Your task to perform on an android device: Open Google Chrome and open the bookmarks view Image 0: 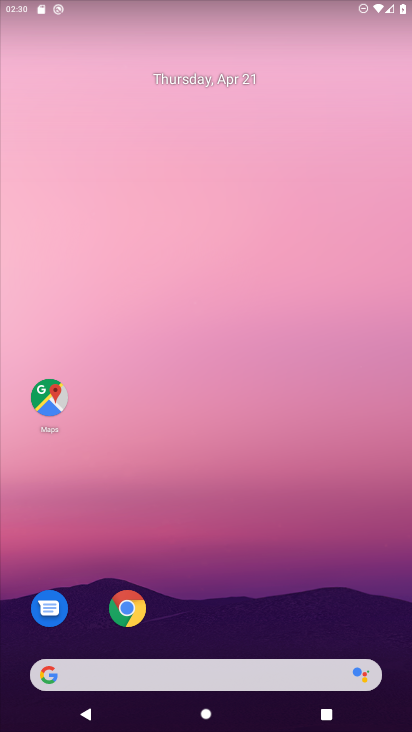
Step 0: drag from (200, 483) to (210, 234)
Your task to perform on an android device: Open Google Chrome and open the bookmarks view Image 1: 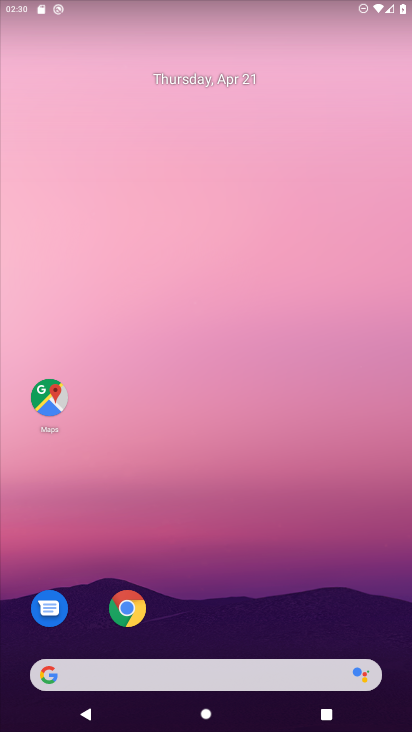
Step 1: drag from (260, 656) to (279, 207)
Your task to perform on an android device: Open Google Chrome and open the bookmarks view Image 2: 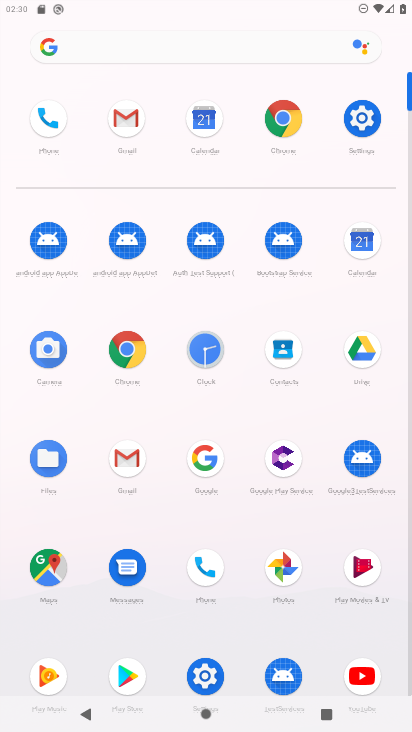
Step 2: click (277, 118)
Your task to perform on an android device: Open Google Chrome and open the bookmarks view Image 3: 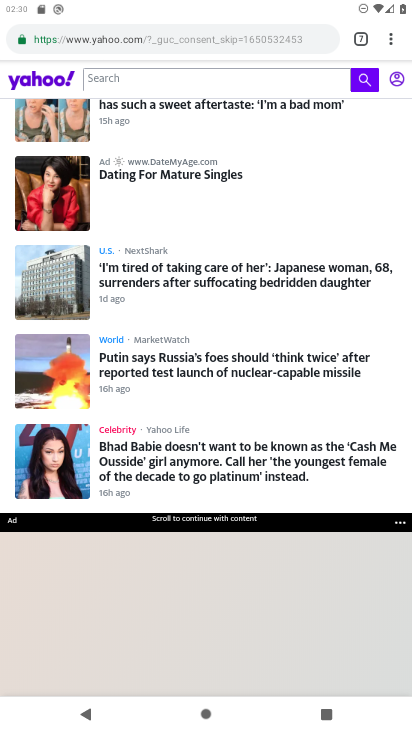
Step 3: click (386, 34)
Your task to perform on an android device: Open Google Chrome and open the bookmarks view Image 4: 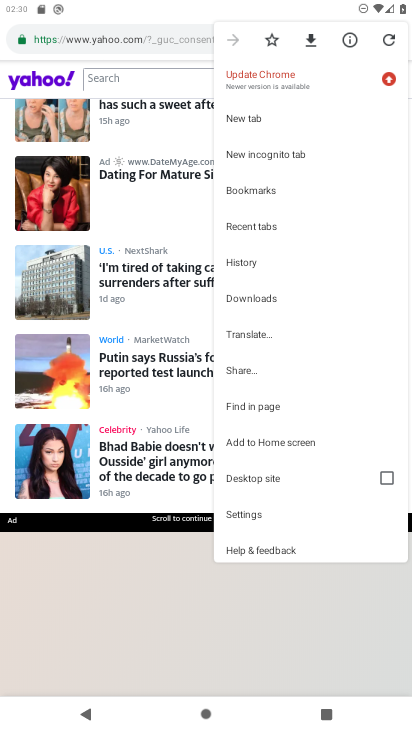
Step 4: click (277, 185)
Your task to perform on an android device: Open Google Chrome and open the bookmarks view Image 5: 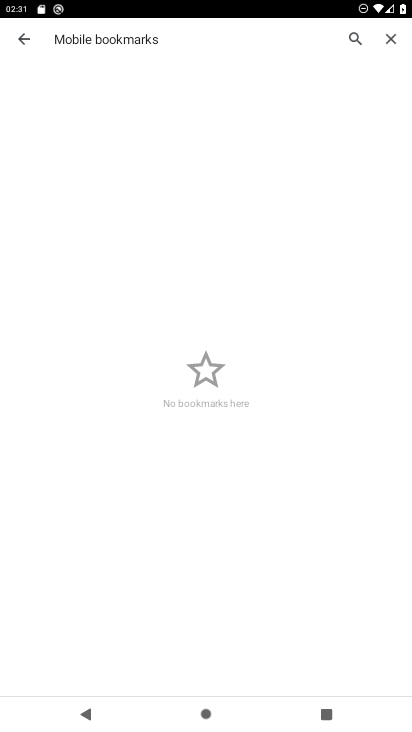
Step 5: task complete